Your task to perform on an android device: Search for seafood restaurants on Google Maps Image 0: 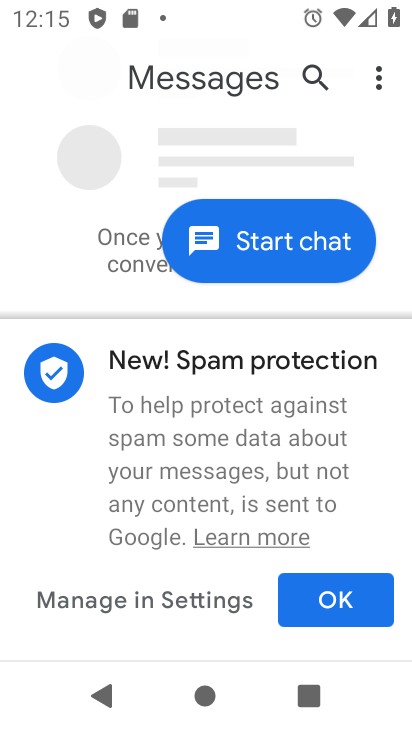
Step 0: press home button
Your task to perform on an android device: Search for seafood restaurants on Google Maps Image 1: 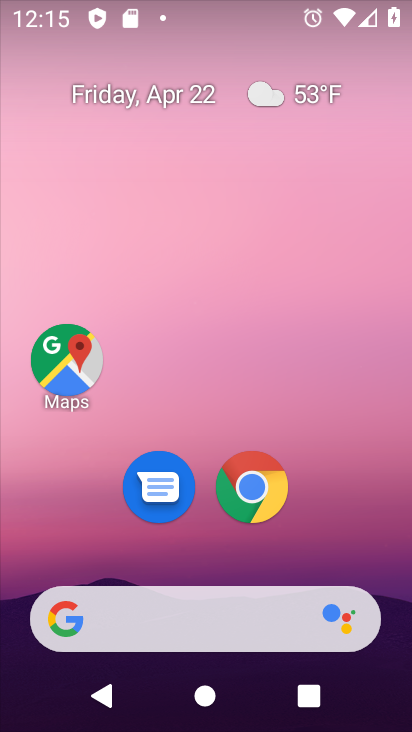
Step 1: click (64, 360)
Your task to perform on an android device: Search for seafood restaurants on Google Maps Image 2: 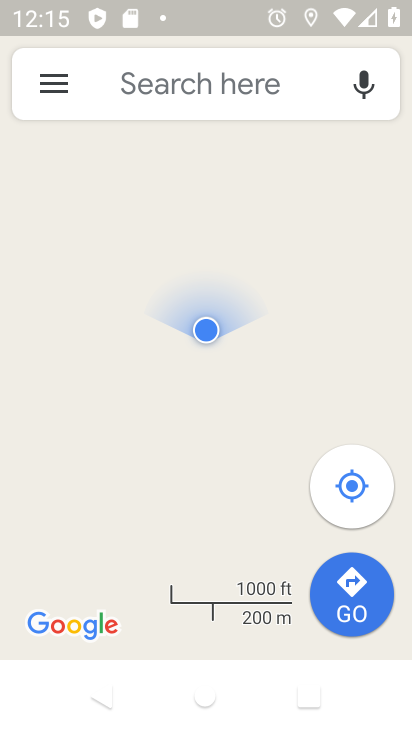
Step 2: click (210, 86)
Your task to perform on an android device: Search for seafood restaurants on Google Maps Image 3: 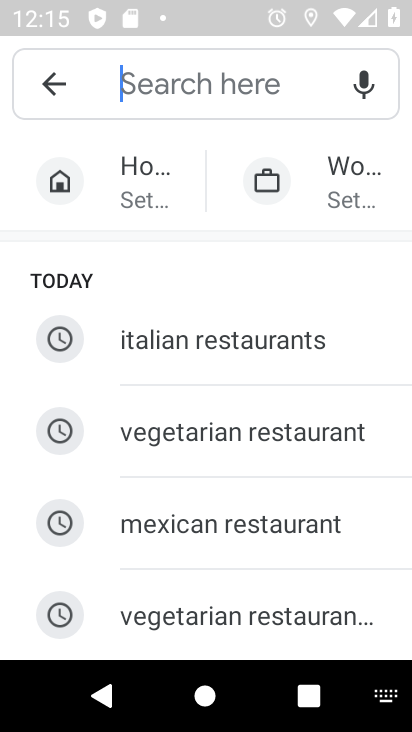
Step 3: drag from (251, 563) to (264, 196)
Your task to perform on an android device: Search for seafood restaurants on Google Maps Image 4: 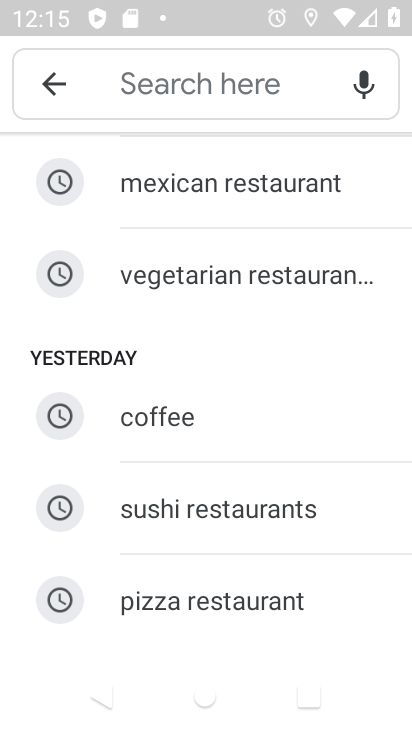
Step 4: drag from (274, 538) to (262, 293)
Your task to perform on an android device: Search for seafood restaurants on Google Maps Image 5: 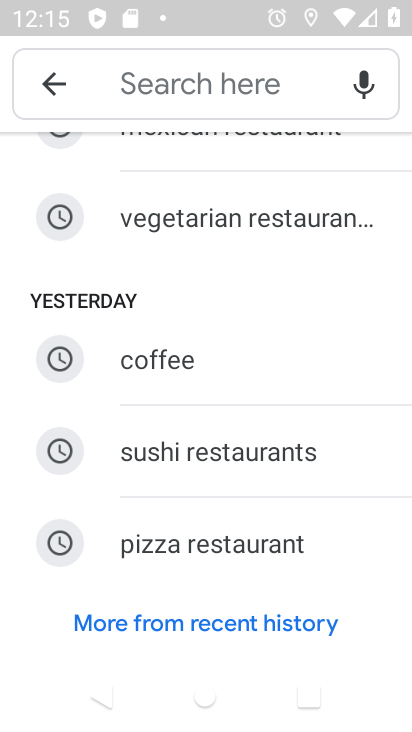
Step 5: click (256, 84)
Your task to perform on an android device: Search for seafood restaurants on Google Maps Image 6: 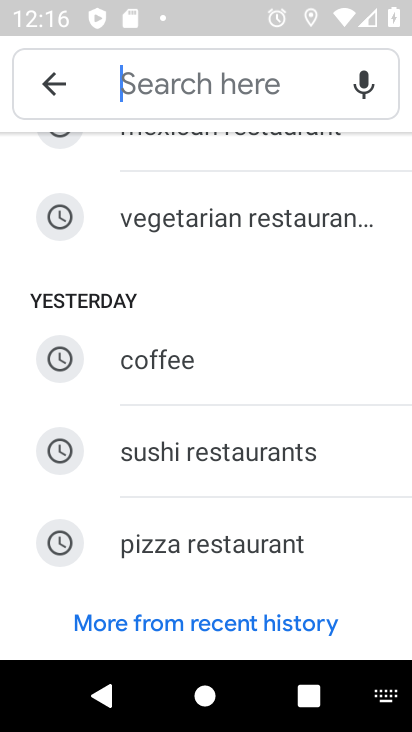
Step 6: type "seafood restaurants"
Your task to perform on an android device: Search for seafood restaurants on Google Maps Image 7: 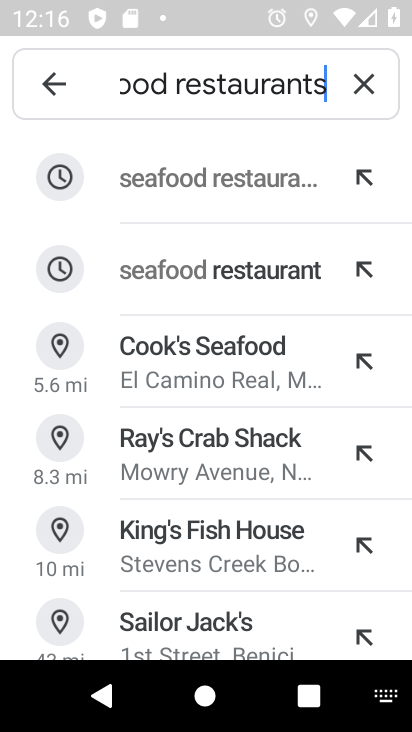
Step 7: click (257, 254)
Your task to perform on an android device: Search for seafood restaurants on Google Maps Image 8: 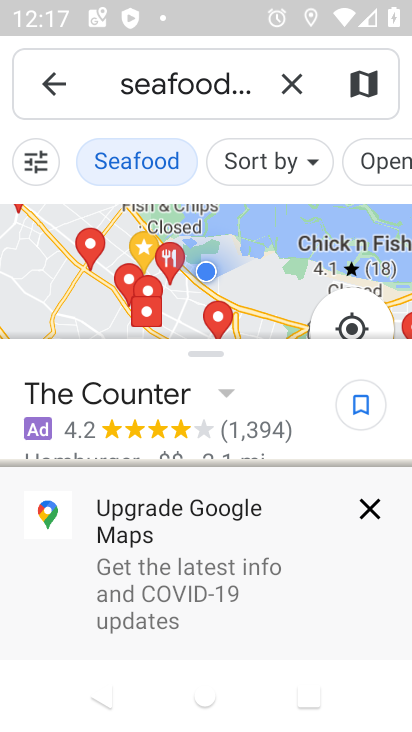
Step 8: task complete